Your task to perform on an android device: Go to settings Image 0: 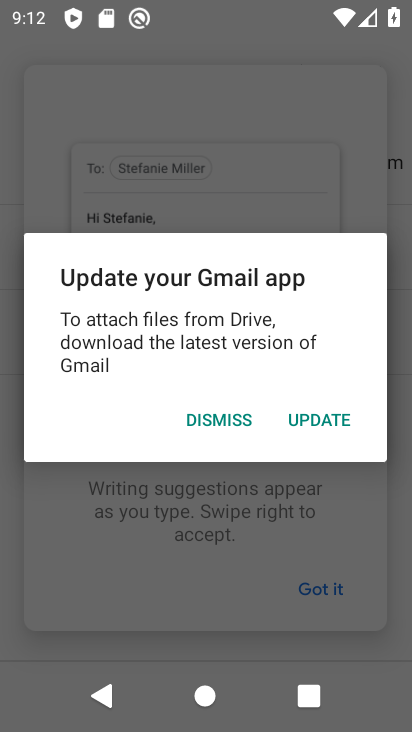
Step 0: press home button
Your task to perform on an android device: Go to settings Image 1: 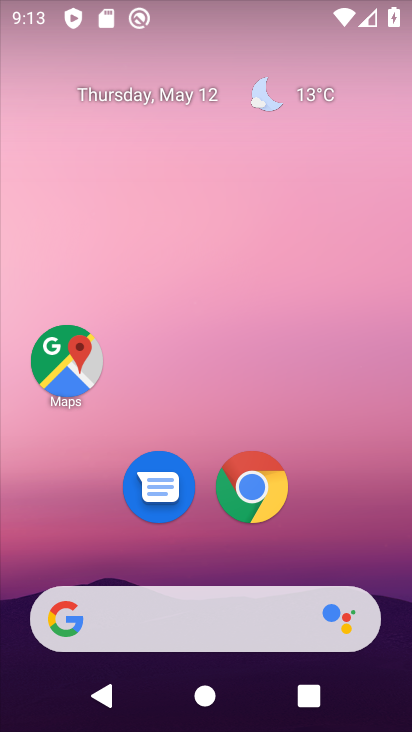
Step 1: drag from (339, 510) to (250, 2)
Your task to perform on an android device: Go to settings Image 2: 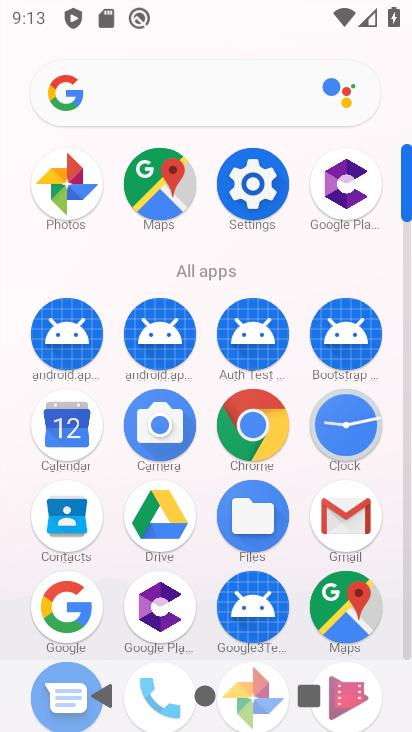
Step 2: click (259, 200)
Your task to perform on an android device: Go to settings Image 3: 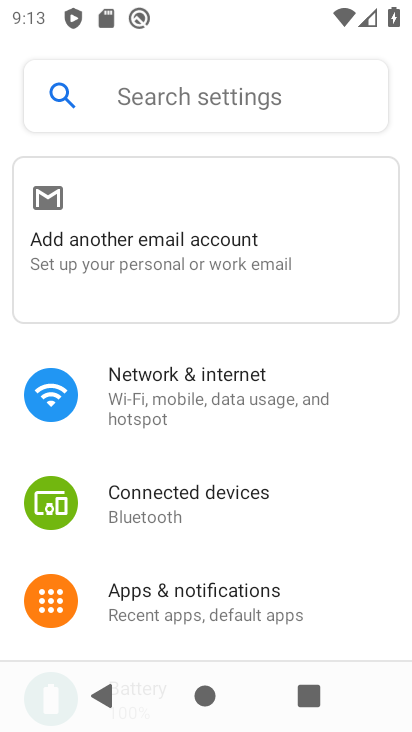
Step 3: task complete